Your task to perform on an android device: open a new tab in the chrome app Image 0: 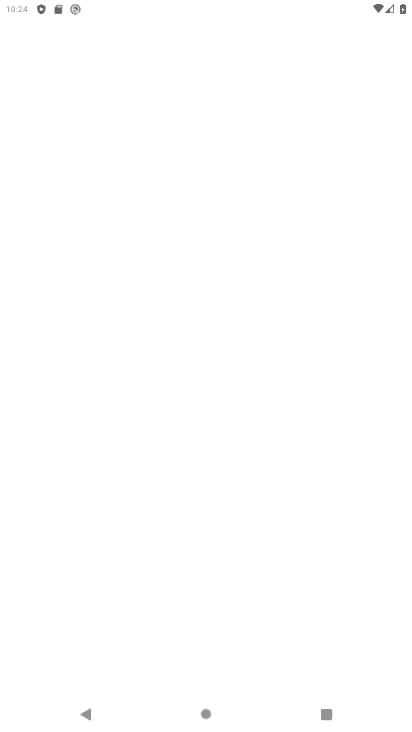
Step 0: press home button
Your task to perform on an android device: open a new tab in the chrome app Image 1: 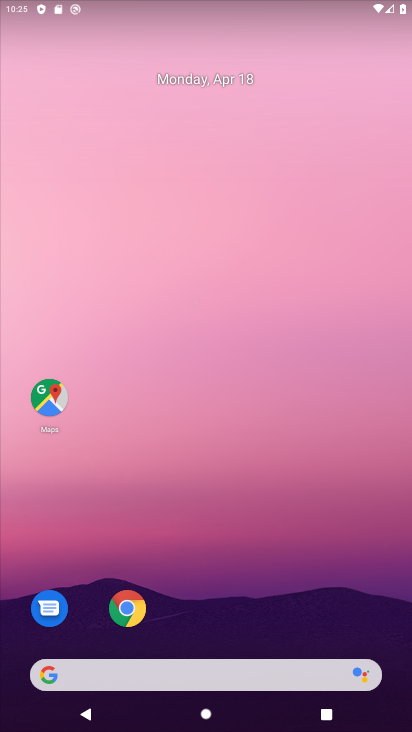
Step 1: drag from (230, 600) to (232, 142)
Your task to perform on an android device: open a new tab in the chrome app Image 2: 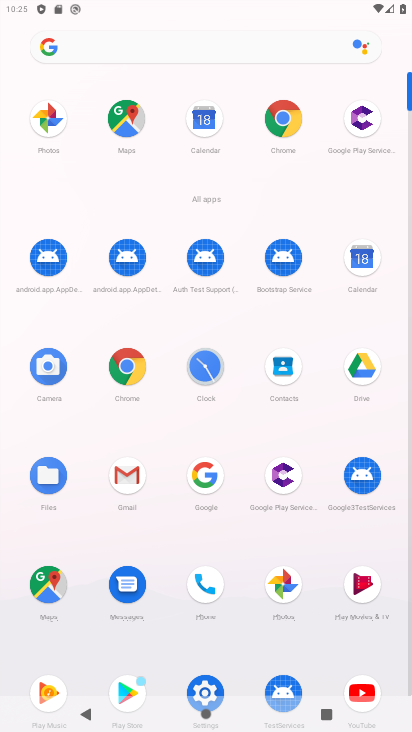
Step 2: click (268, 131)
Your task to perform on an android device: open a new tab in the chrome app Image 3: 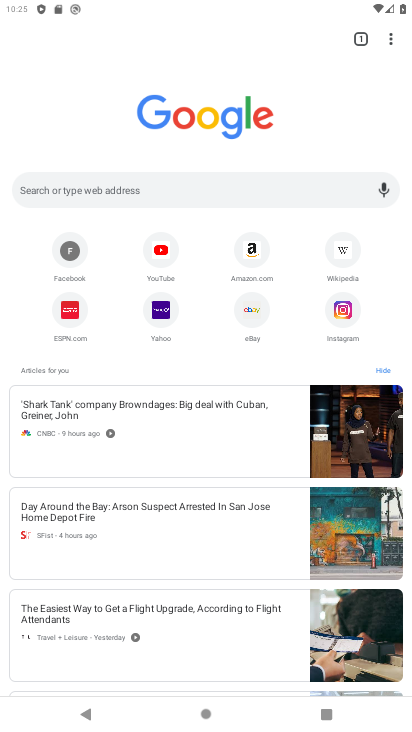
Step 3: click (268, 131)
Your task to perform on an android device: open a new tab in the chrome app Image 4: 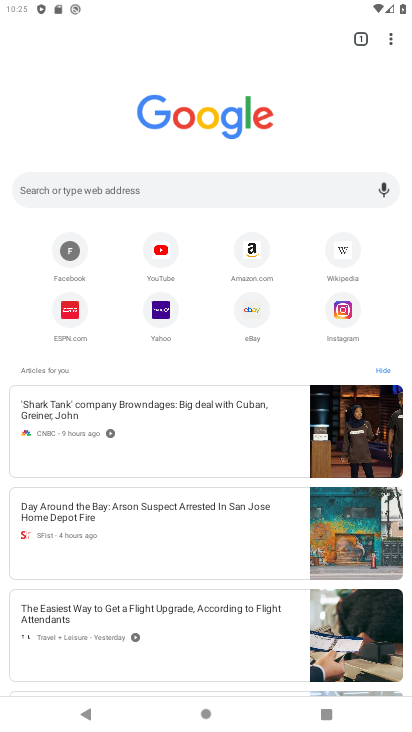
Step 4: task complete